Your task to perform on an android device: open app "PlayWell" (install if not already installed) Image 0: 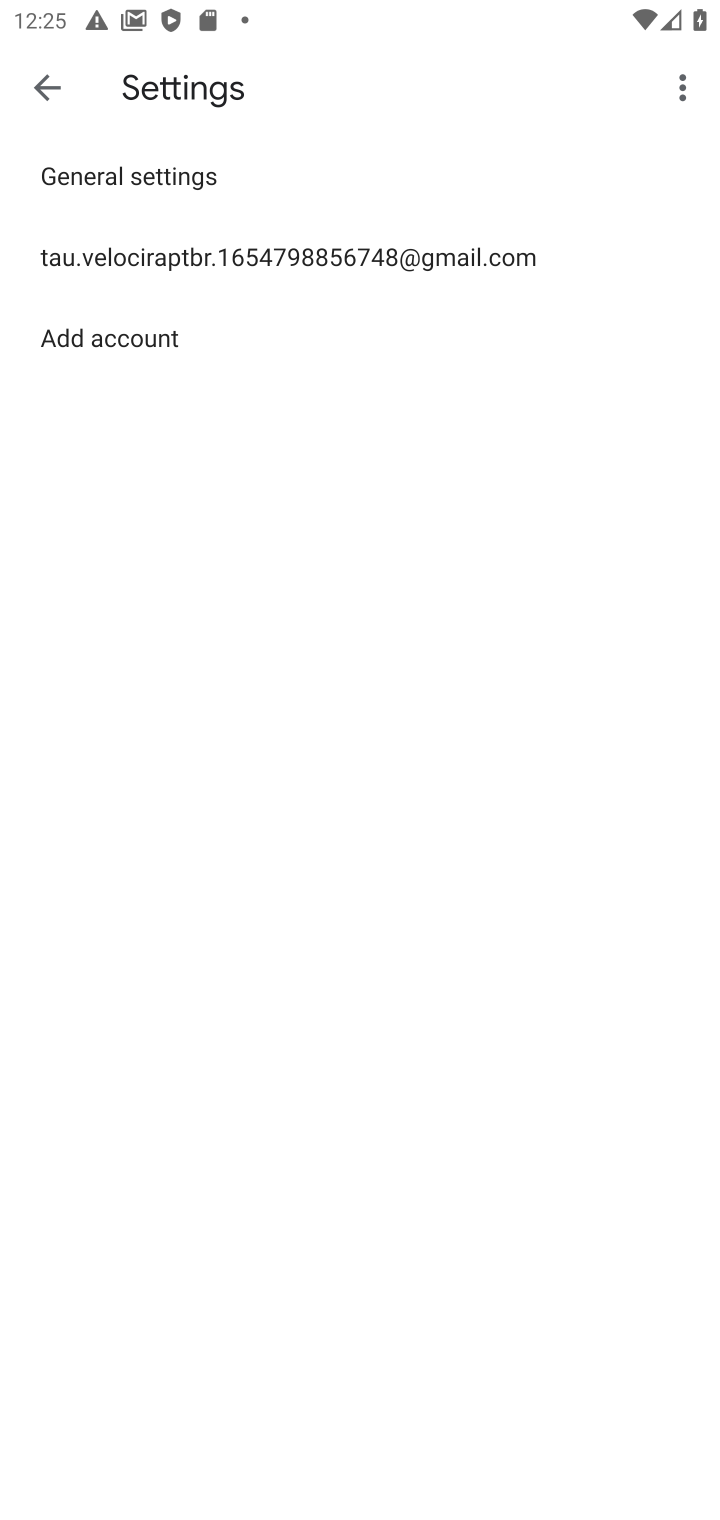
Step 0: click (58, 87)
Your task to perform on an android device: open app "PlayWell" (install if not already installed) Image 1: 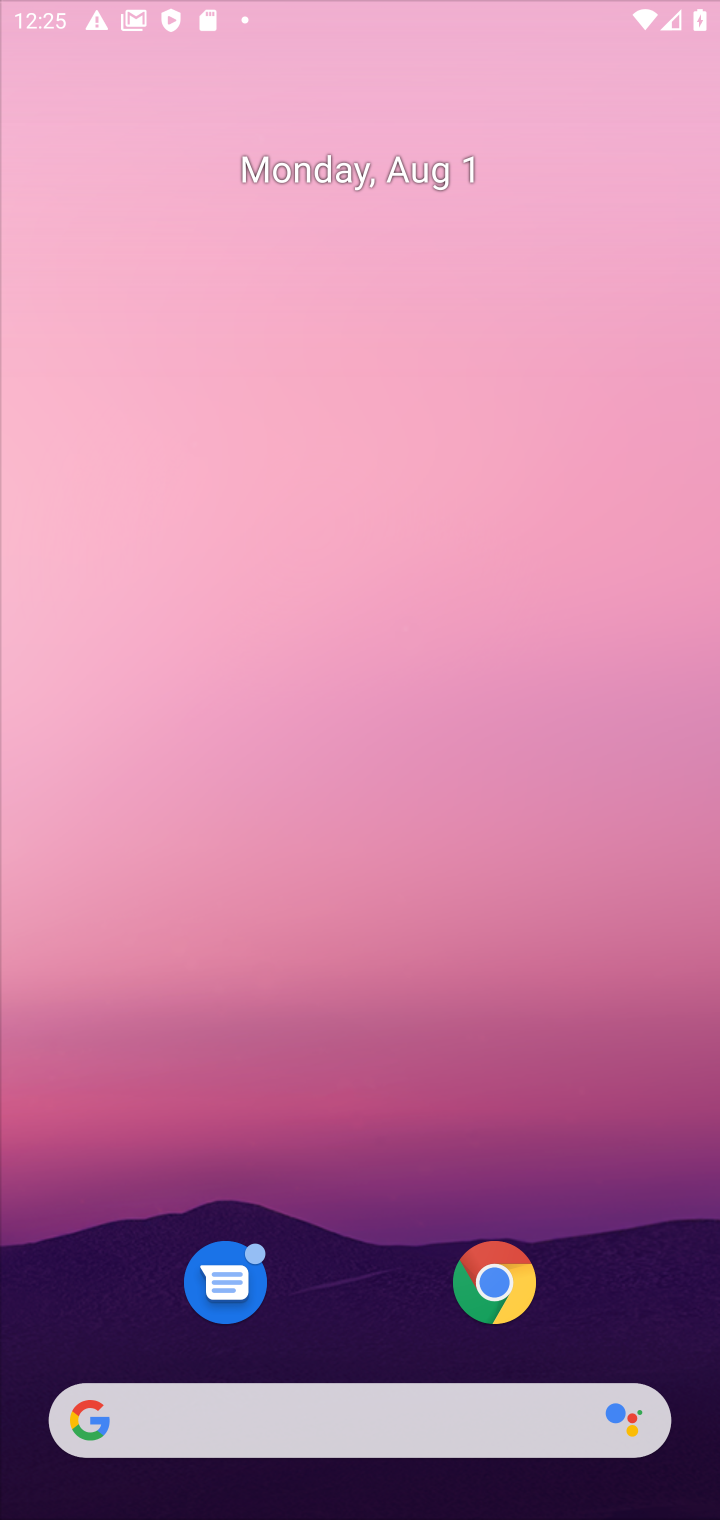
Step 1: drag from (370, 315) to (328, 12)
Your task to perform on an android device: open app "PlayWell" (install if not already installed) Image 2: 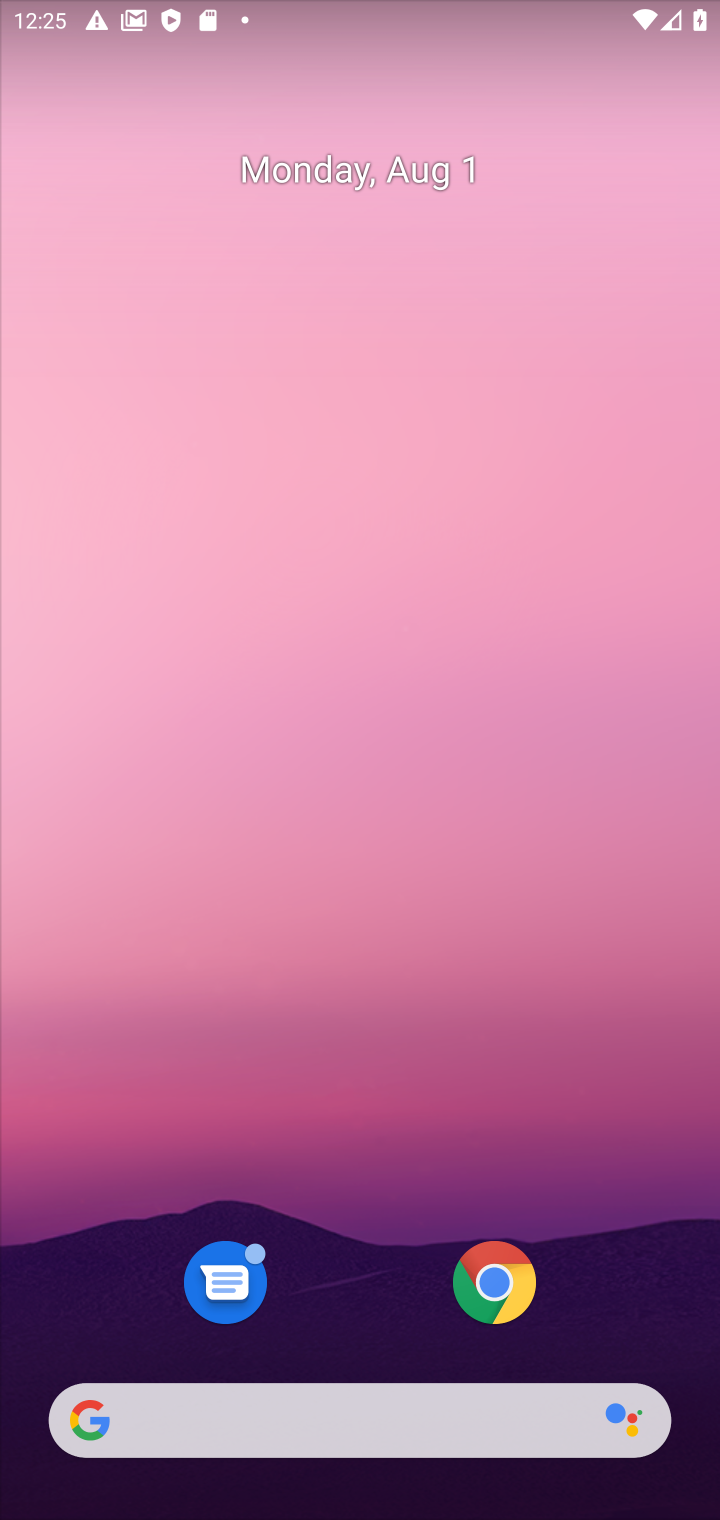
Step 2: drag from (408, 1083) to (309, 233)
Your task to perform on an android device: open app "PlayWell" (install if not already installed) Image 3: 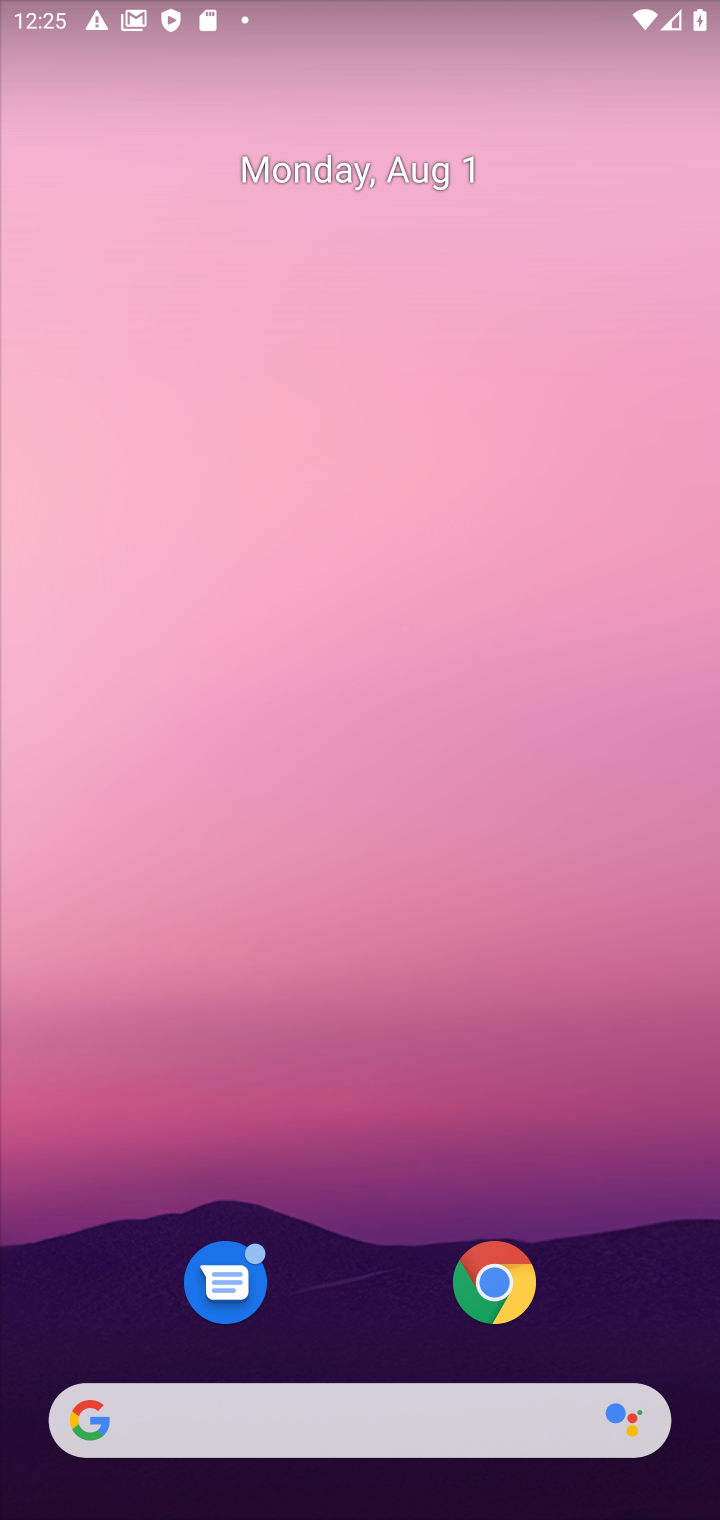
Step 3: drag from (338, 1249) to (338, 366)
Your task to perform on an android device: open app "PlayWell" (install if not already installed) Image 4: 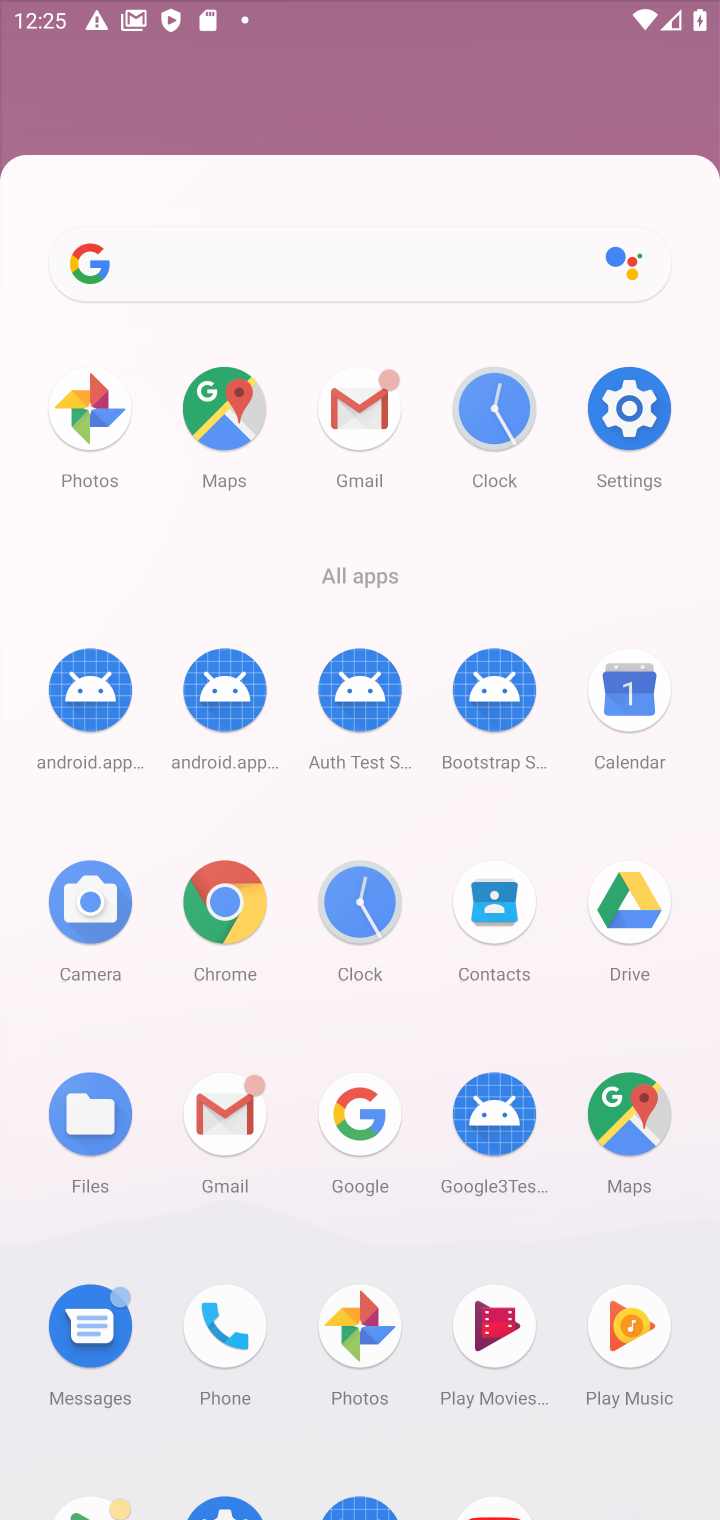
Step 4: drag from (389, 574) to (393, 119)
Your task to perform on an android device: open app "PlayWell" (install if not already installed) Image 5: 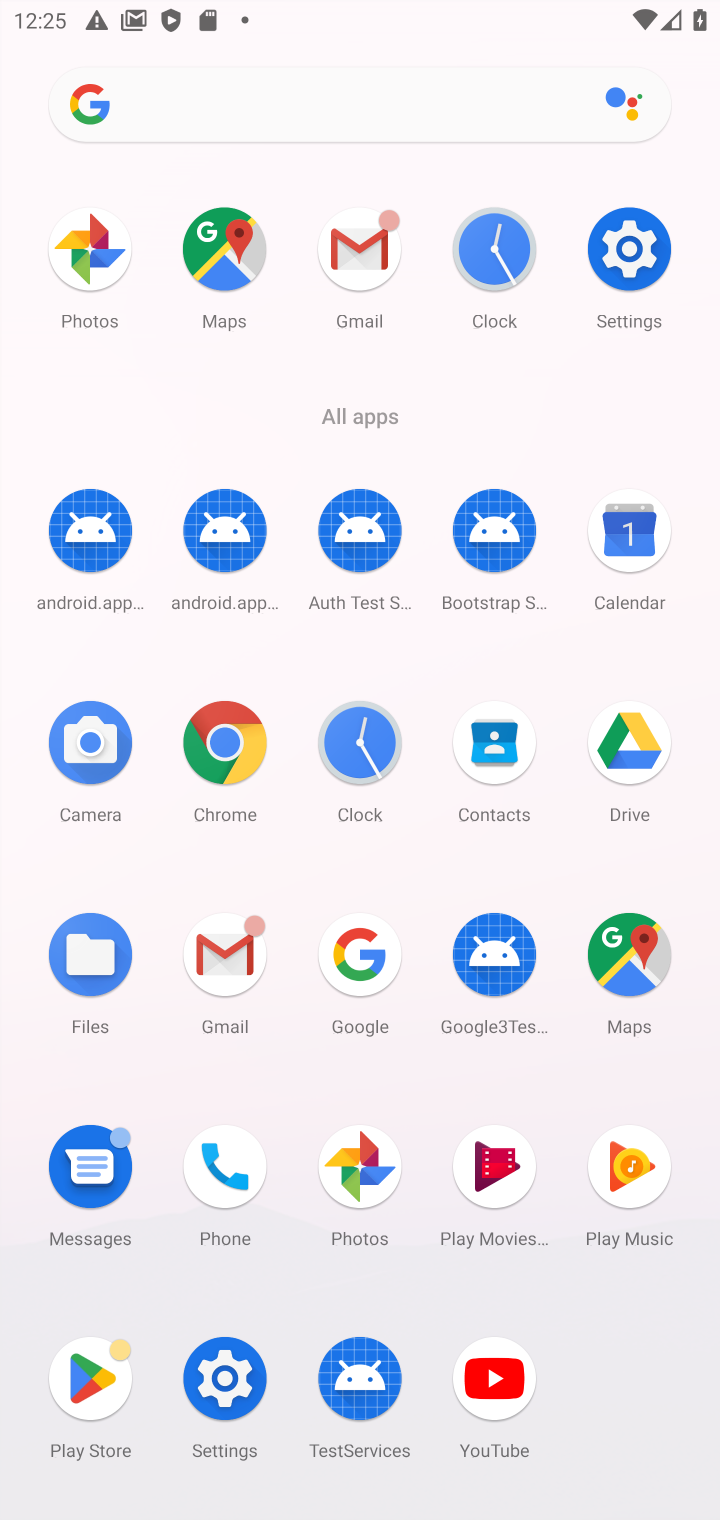
Step 5: click (424, 326)
Your task to perform on an android device: open app "PlayWell" (install if not already installed) Image 6: 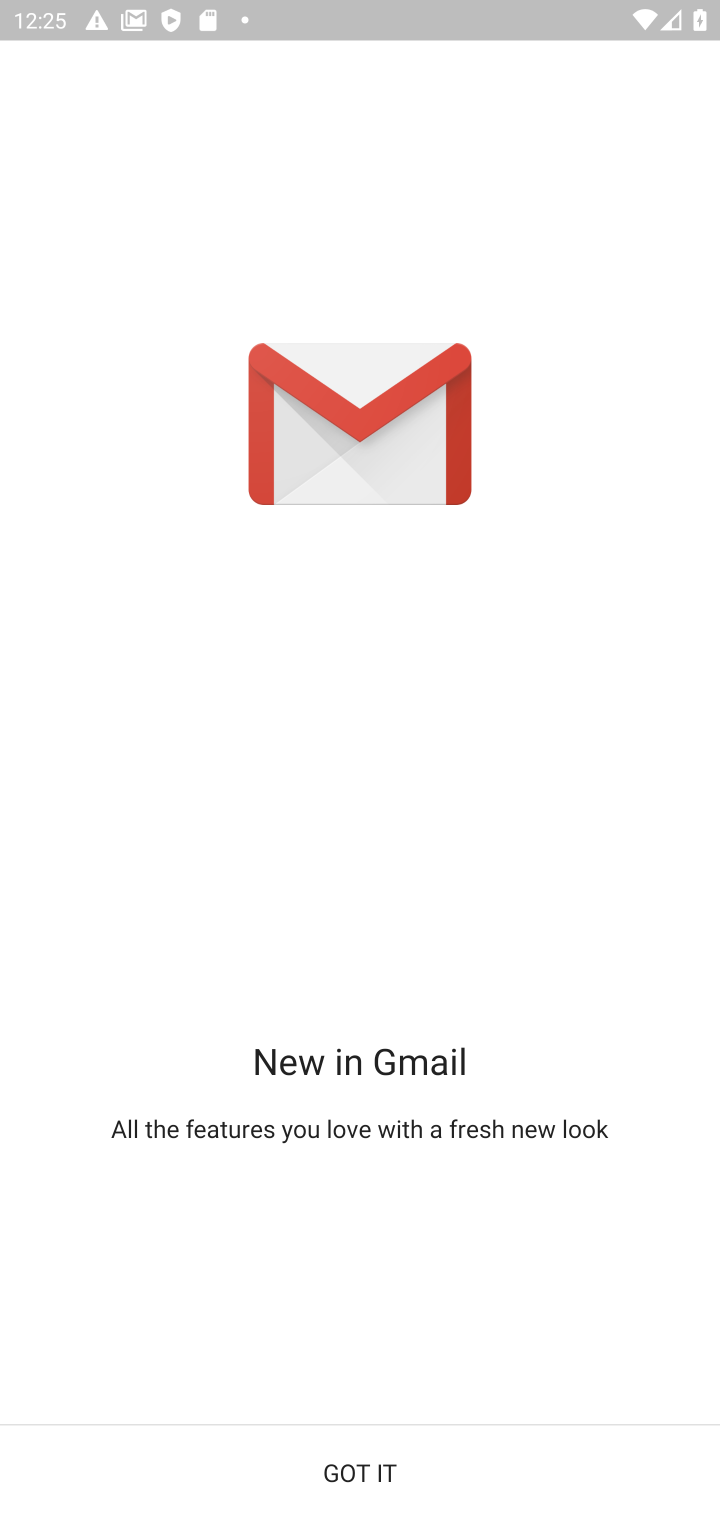
Step 6: press back button
Your task to perform on an android device: open app "PlayWell" (install if not already installed) Image 7: 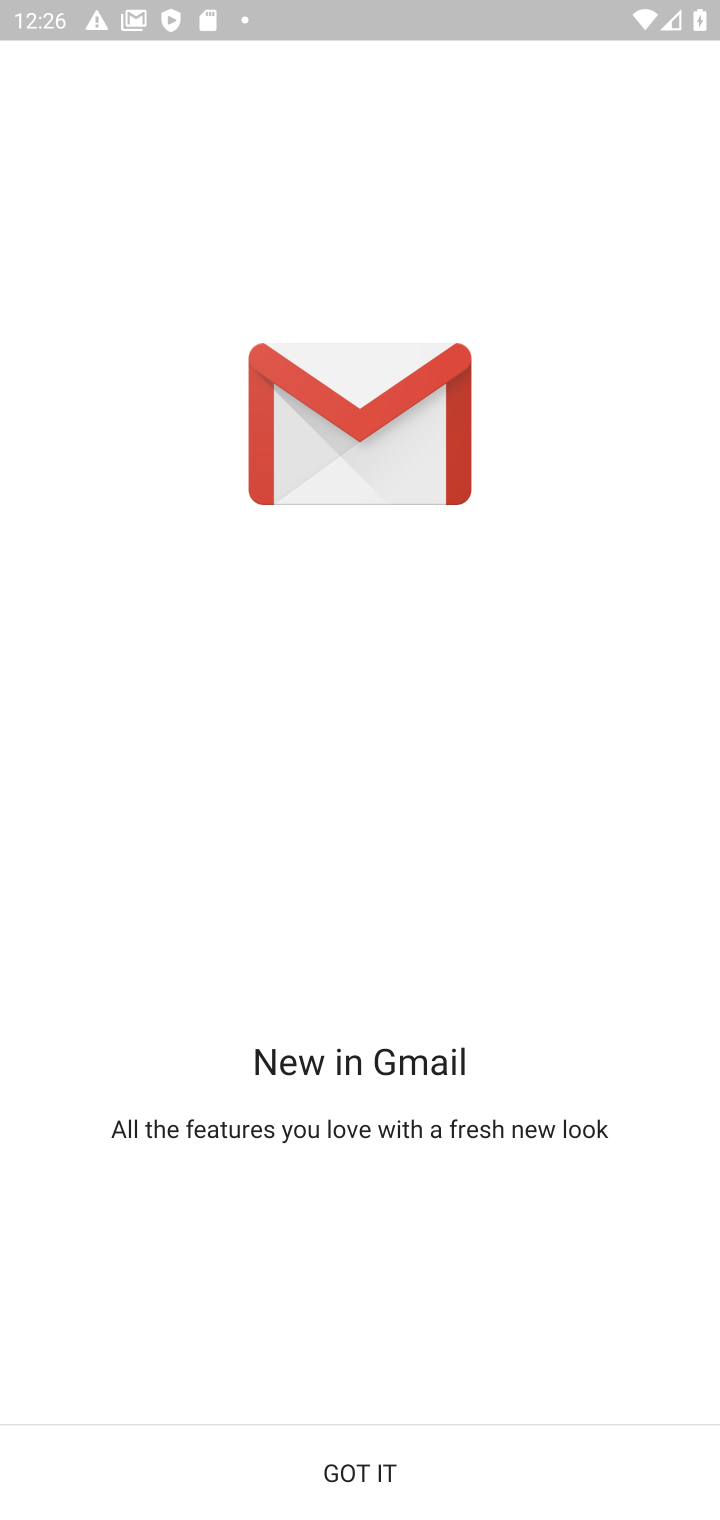
Step 7: press back button
Your task to perform on an android device: open app "PlayWell" (install if not already installed) Image 8: 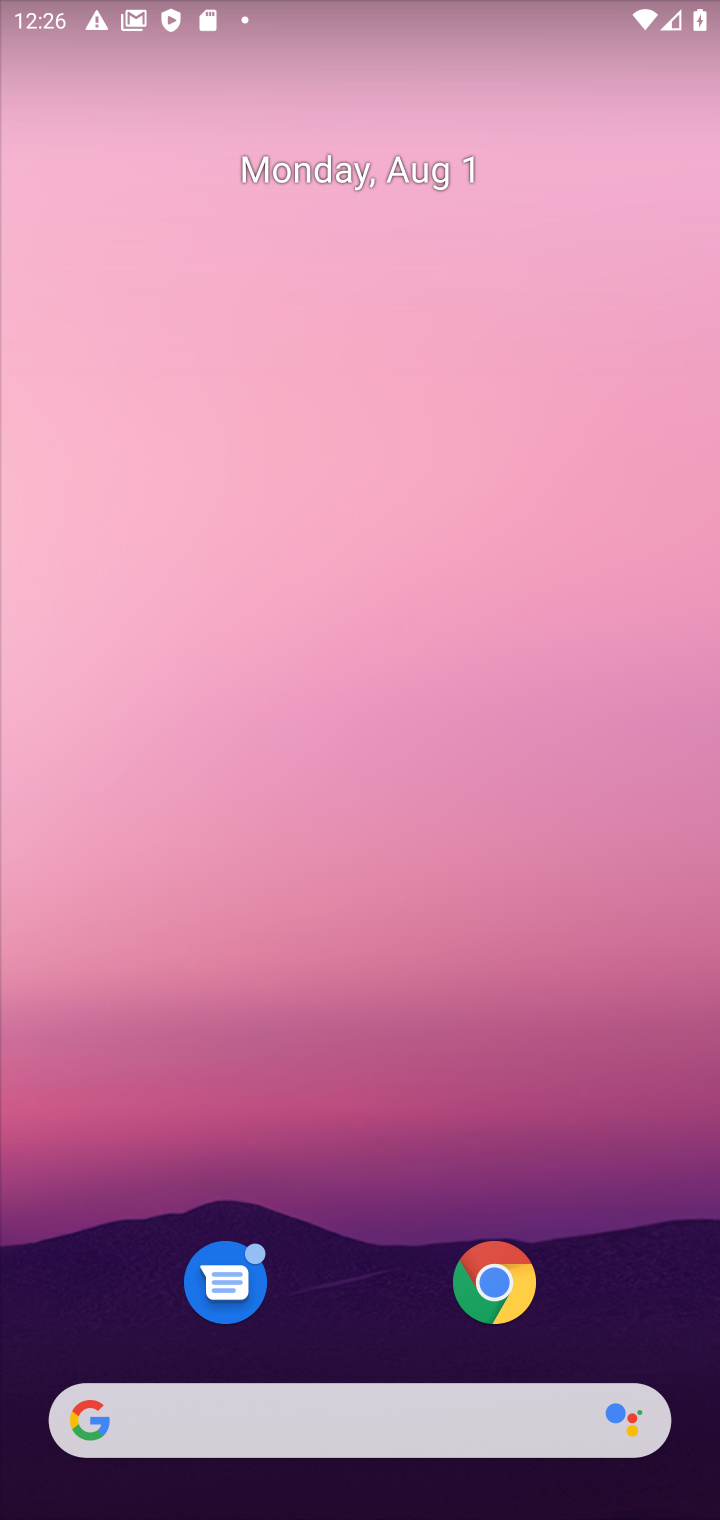
Step 8: drag from (379, 970) to (302, 3)
Your task to perform on an android device: open app "PlayWell" (install if not already installed) Image 9: 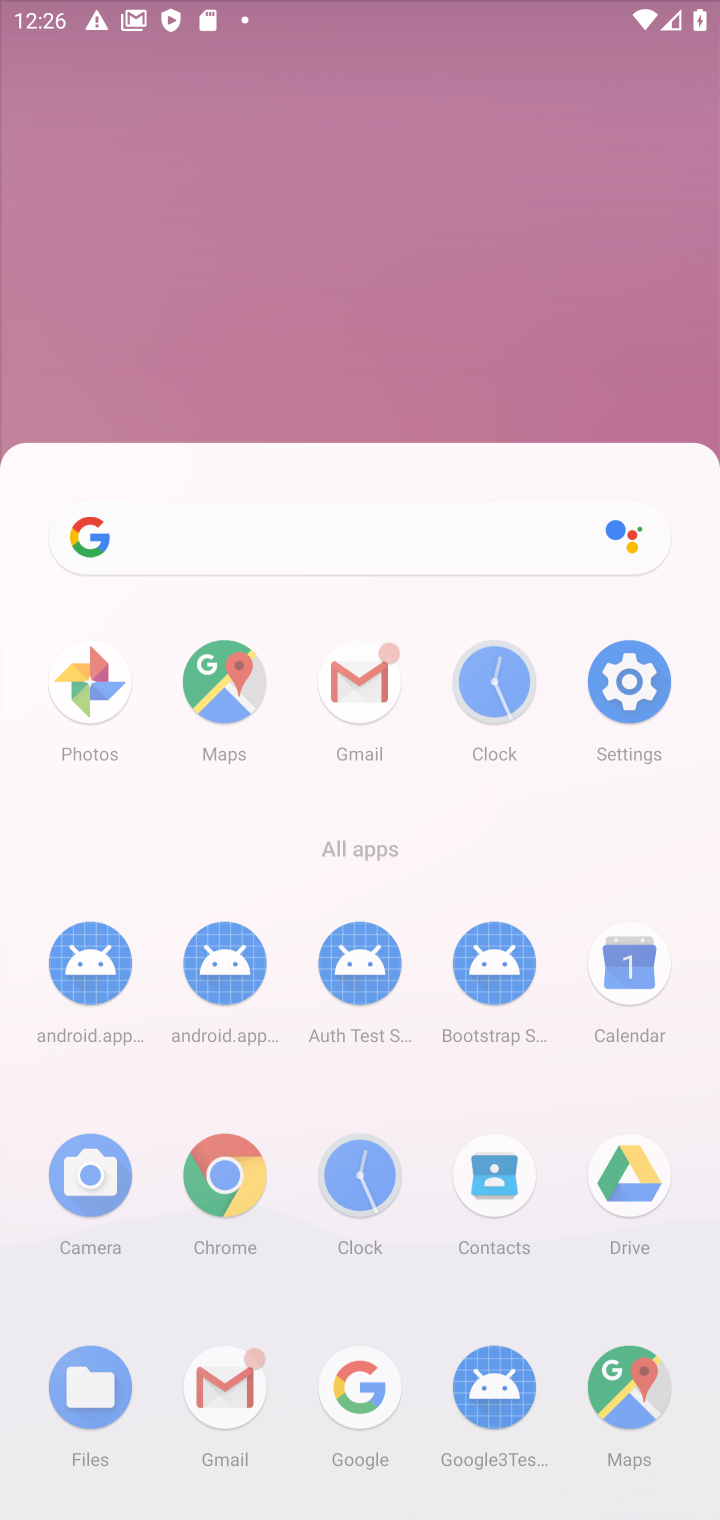
Step 9: click (313, 173)
Your task to perform on an android device: open app "PlayWell" (install if not already installed) Image 10: 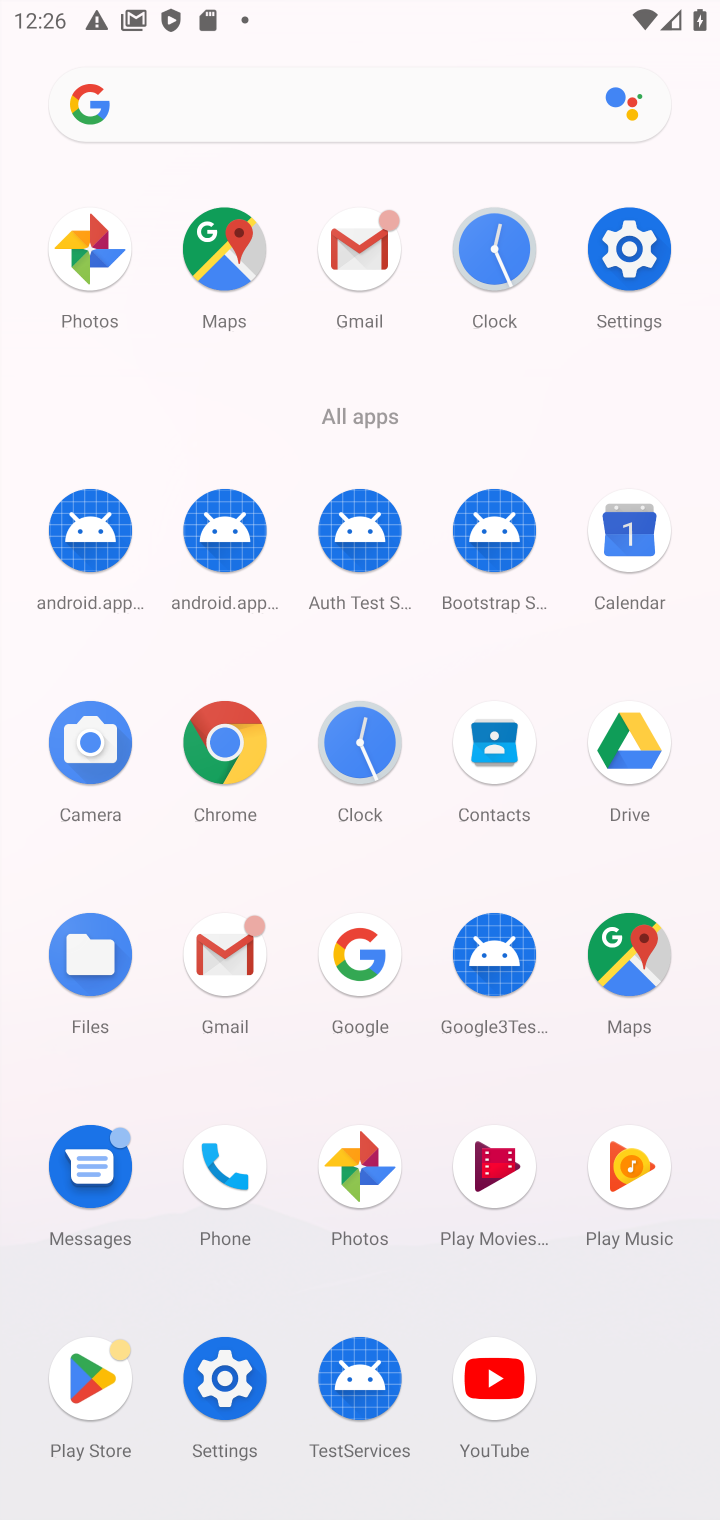
Step 10: click (75, 1393)
Your task to perform on an android device: open app "PlayWell" (install if not already installed) Image 11: 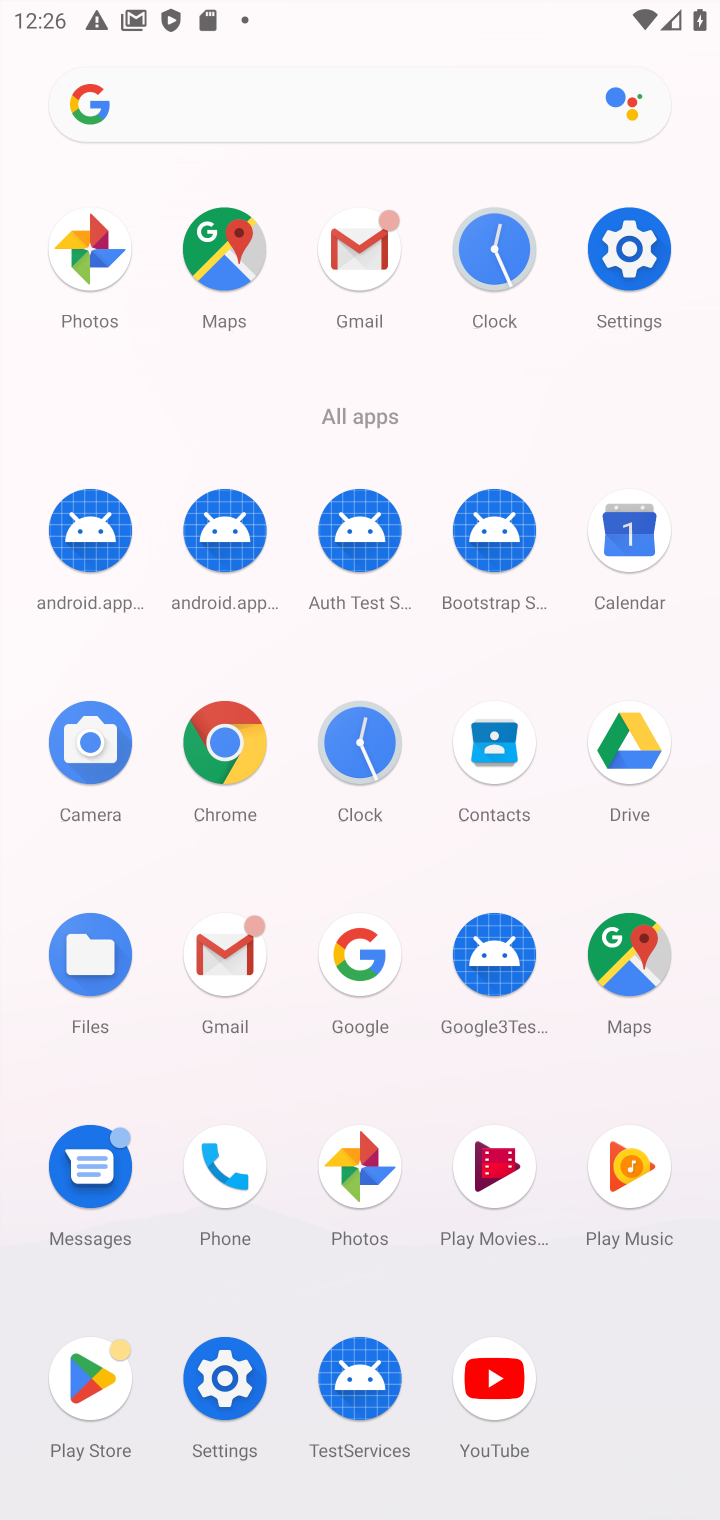
Step 11: click (77, 1391)
Your task to perform on an android device: open app "PlayWell" (install if not already installed) Image 12: 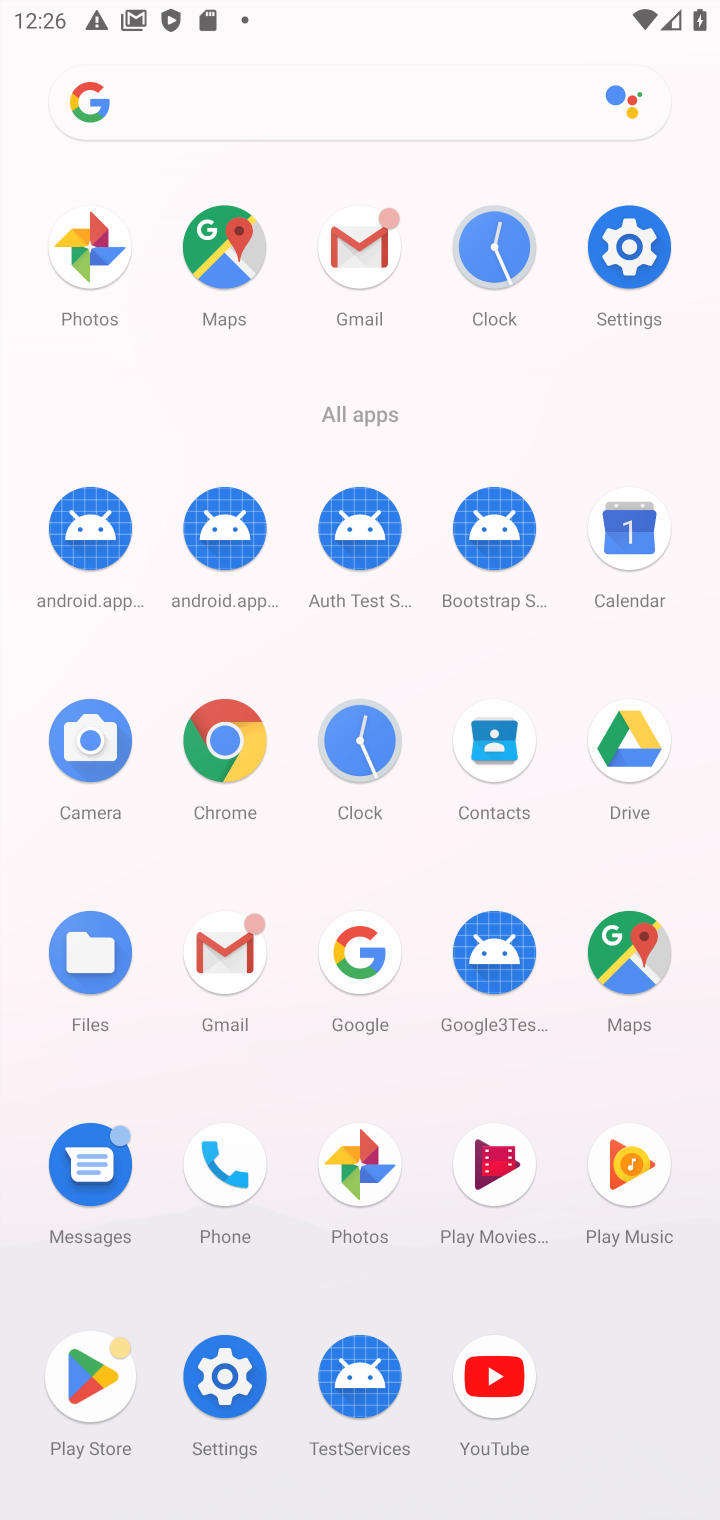
Step 12: click (81, 1387)
Your task to perform on an android device: open app "PlayWell" (install if not already installed) Image 13: 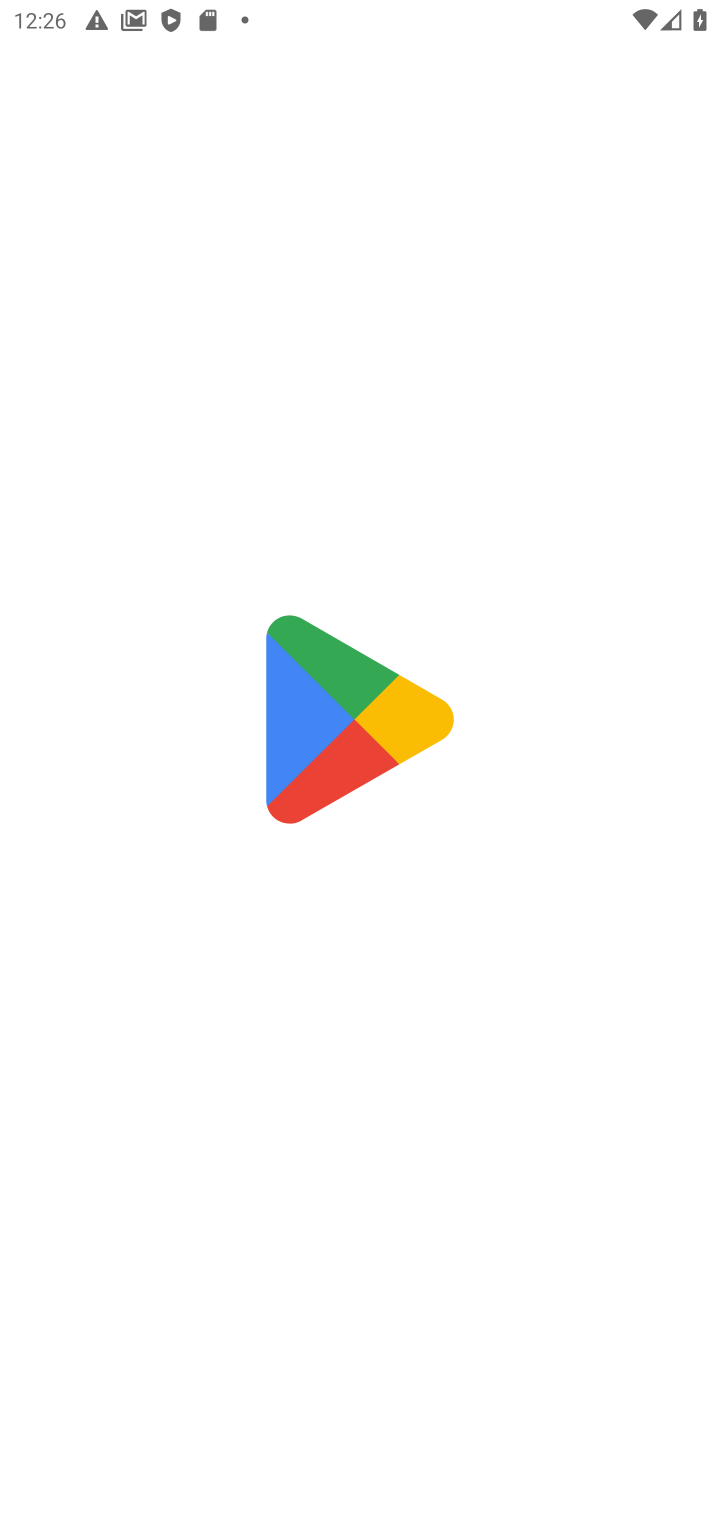
Step 13: click (87, 1373)
Your task to perform on an android device: open app "PlayWell" (install if not already installed) Image 14: 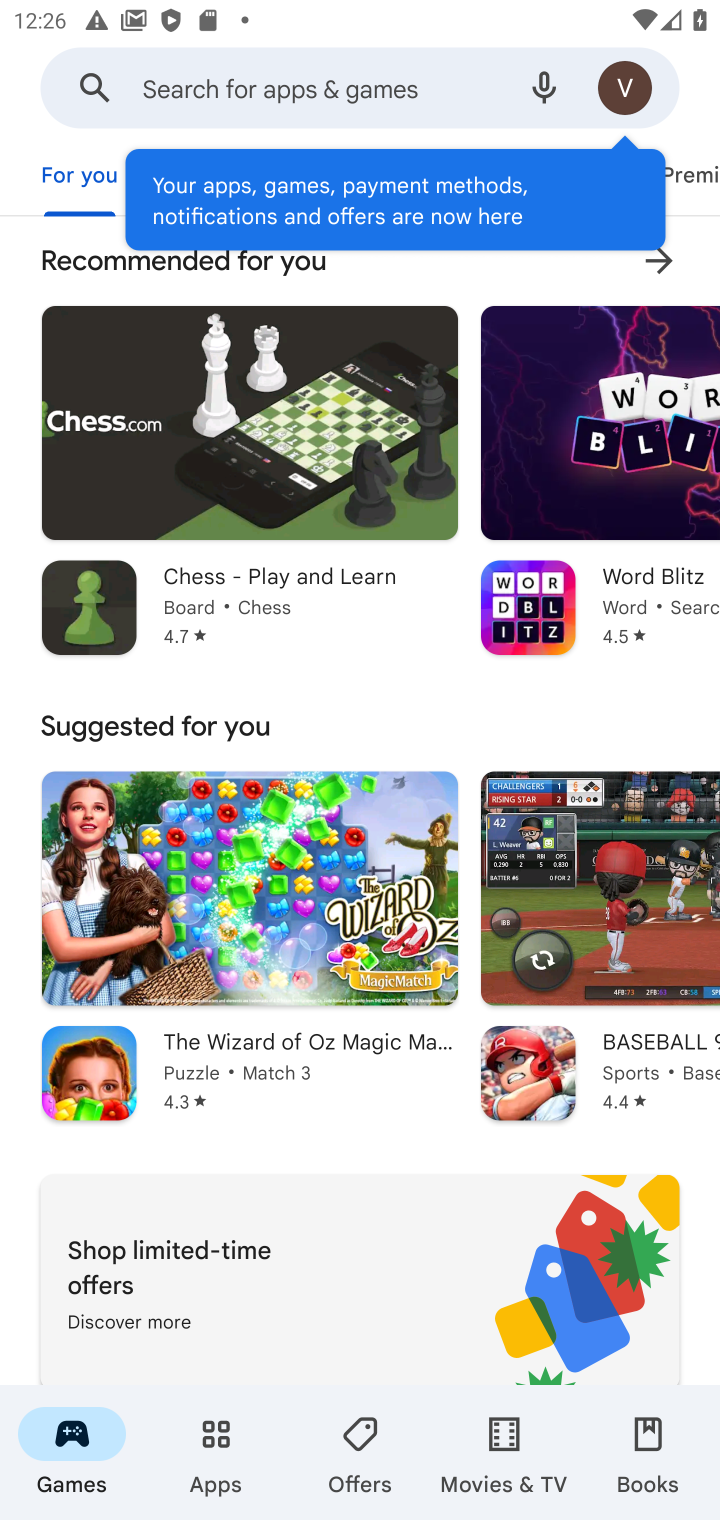
Step 14: click (195, 166)
Your task to perform on an android device: open app "PlayWell" (install if not already installed) Image 15: 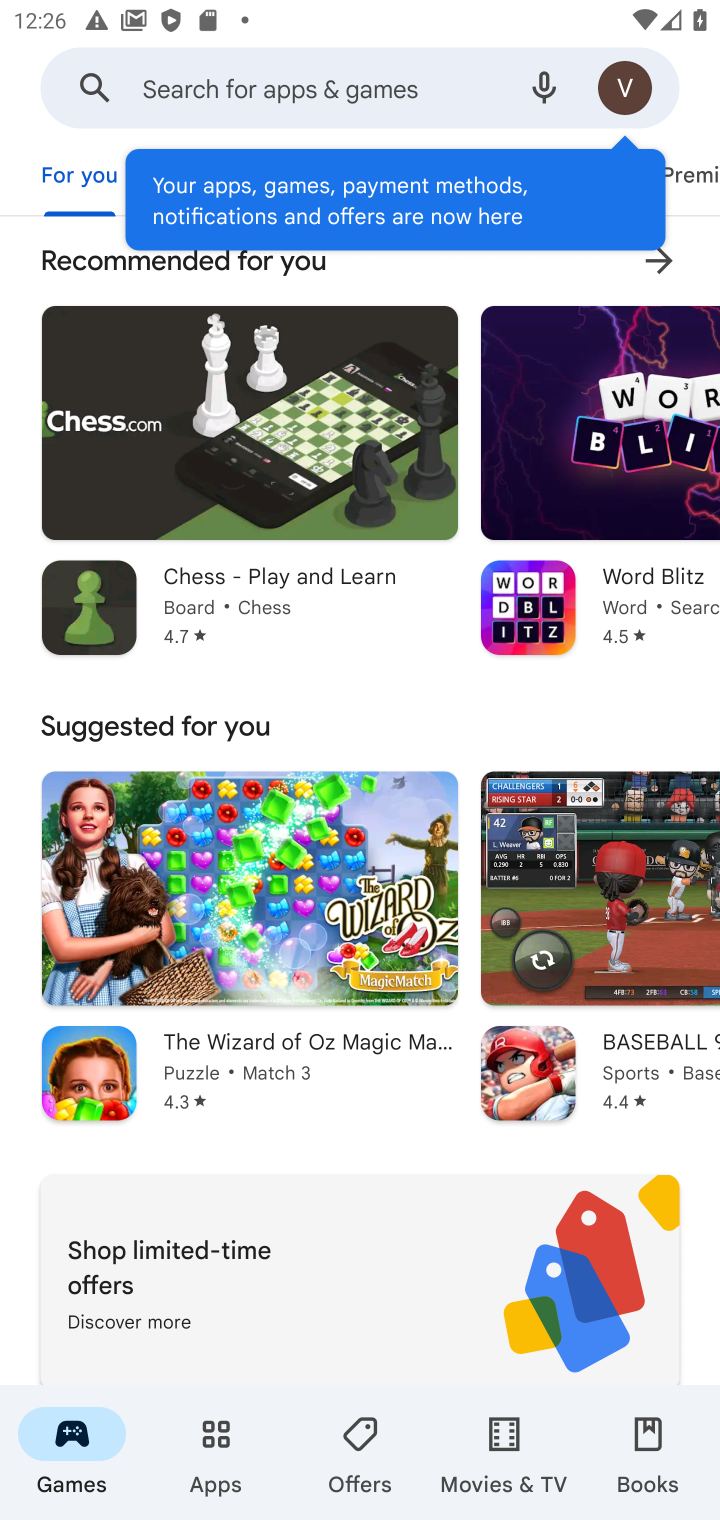
Step 15: click (188, 88)
Your task to perform on an android device: open app "PlayWell" (install if not already installed) Image 16: 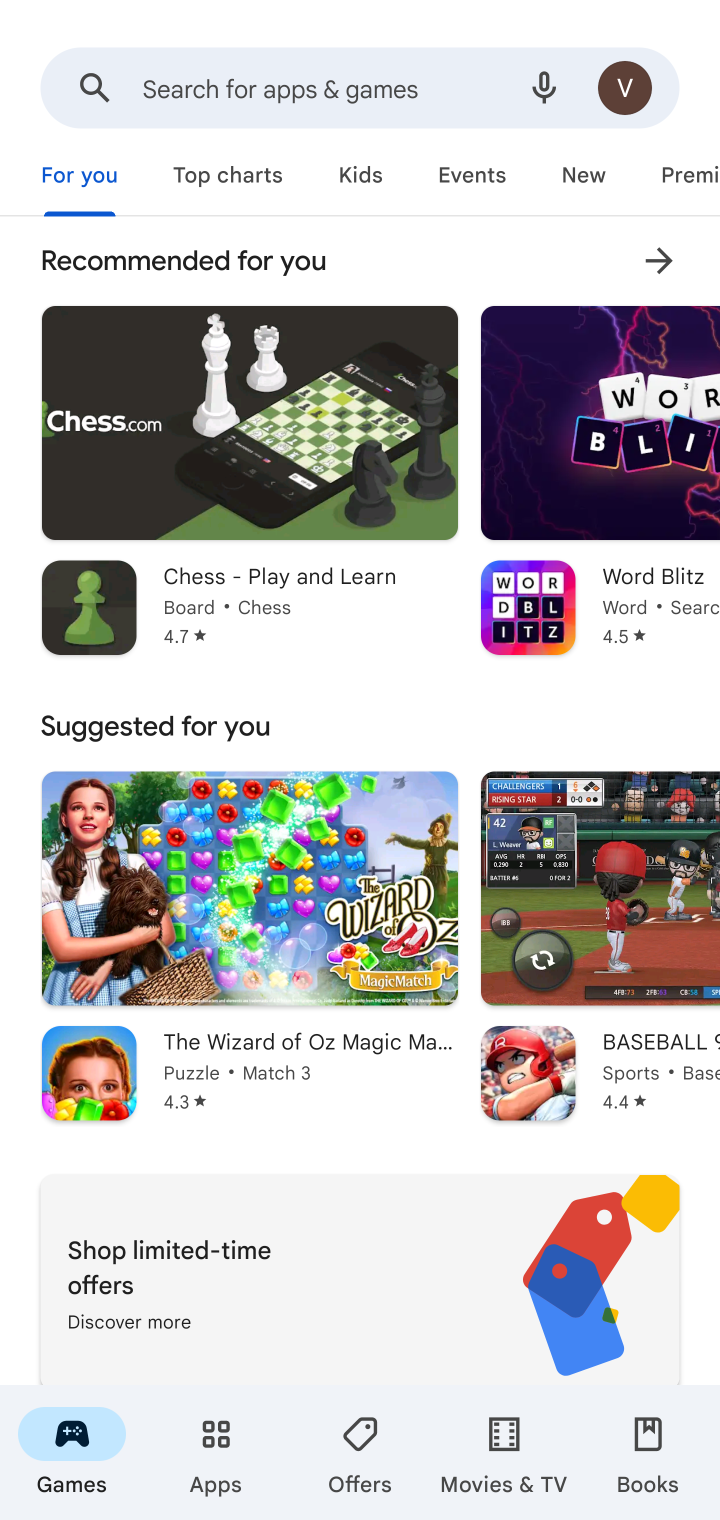
Step 16: click (172, 82)
Your task to perform on an android device: open app "PlayWell" (install if not already installed) Image 17: 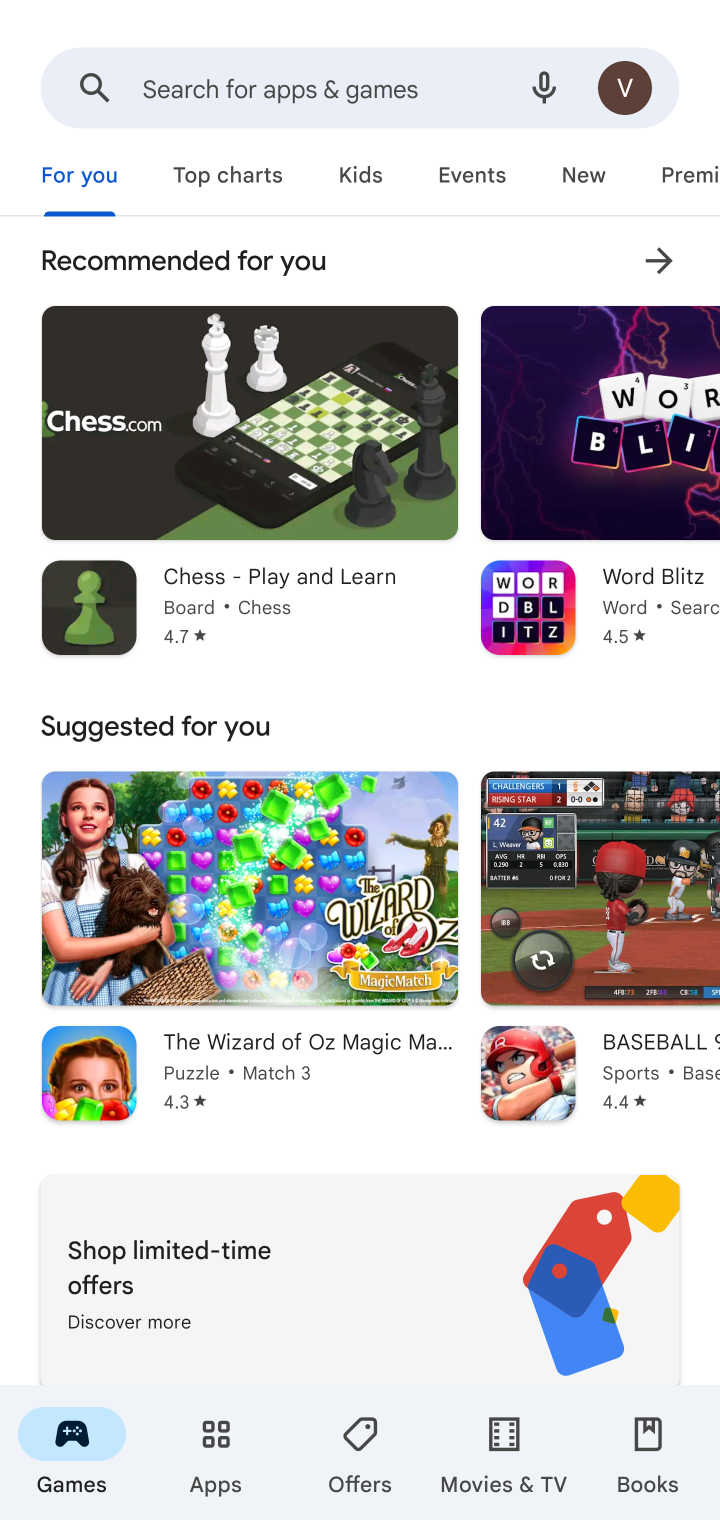
Step 17: click (183, 103)
Your task to perform on an android device: open app "PlayWell" (install if not already installed) Image 18: 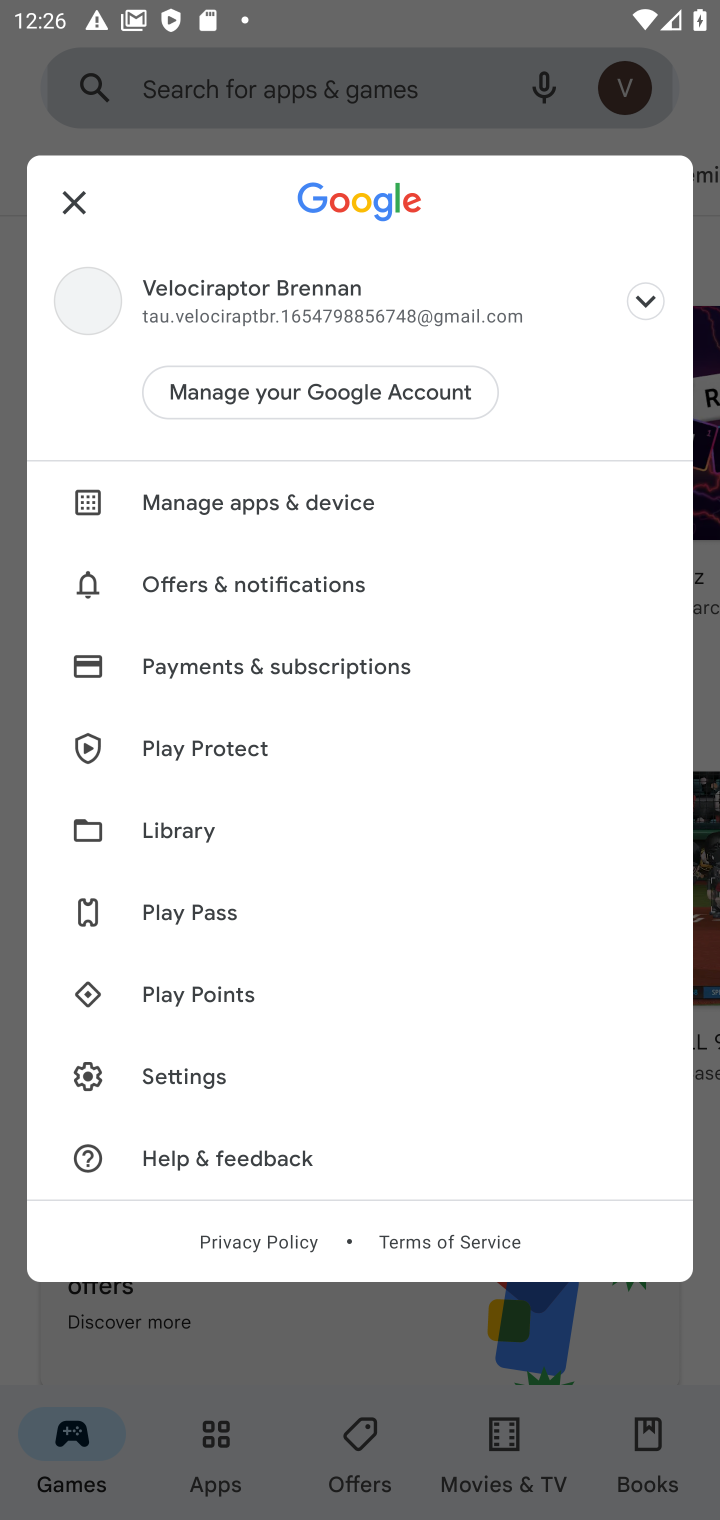
Step 18: click (189, 92)
Your task to perform on an android device: open app "PlayWell" (install if not already installed) Image 19: 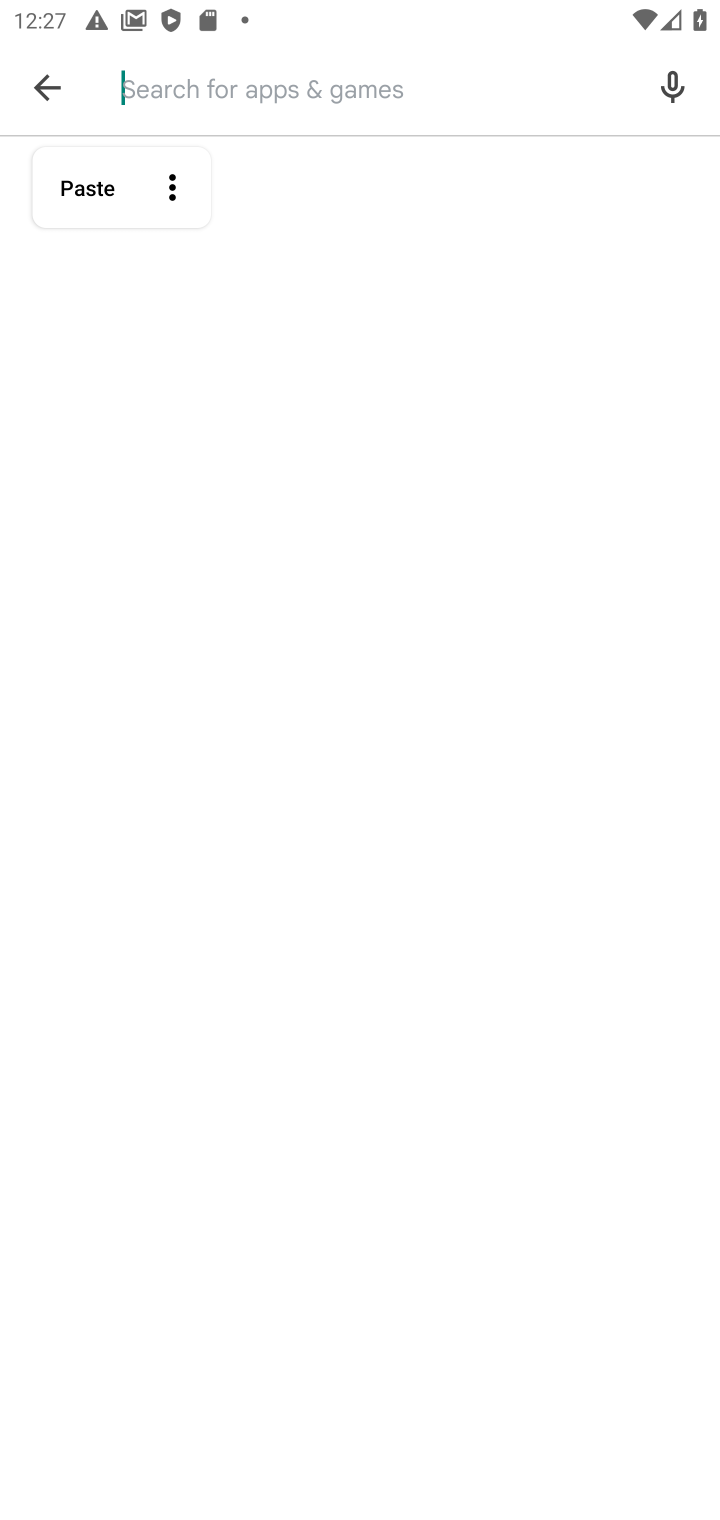
Step 19: type "playWell"
Your task to perform on an android device: open app "PlayWell" (install if not already installed) Image 20: 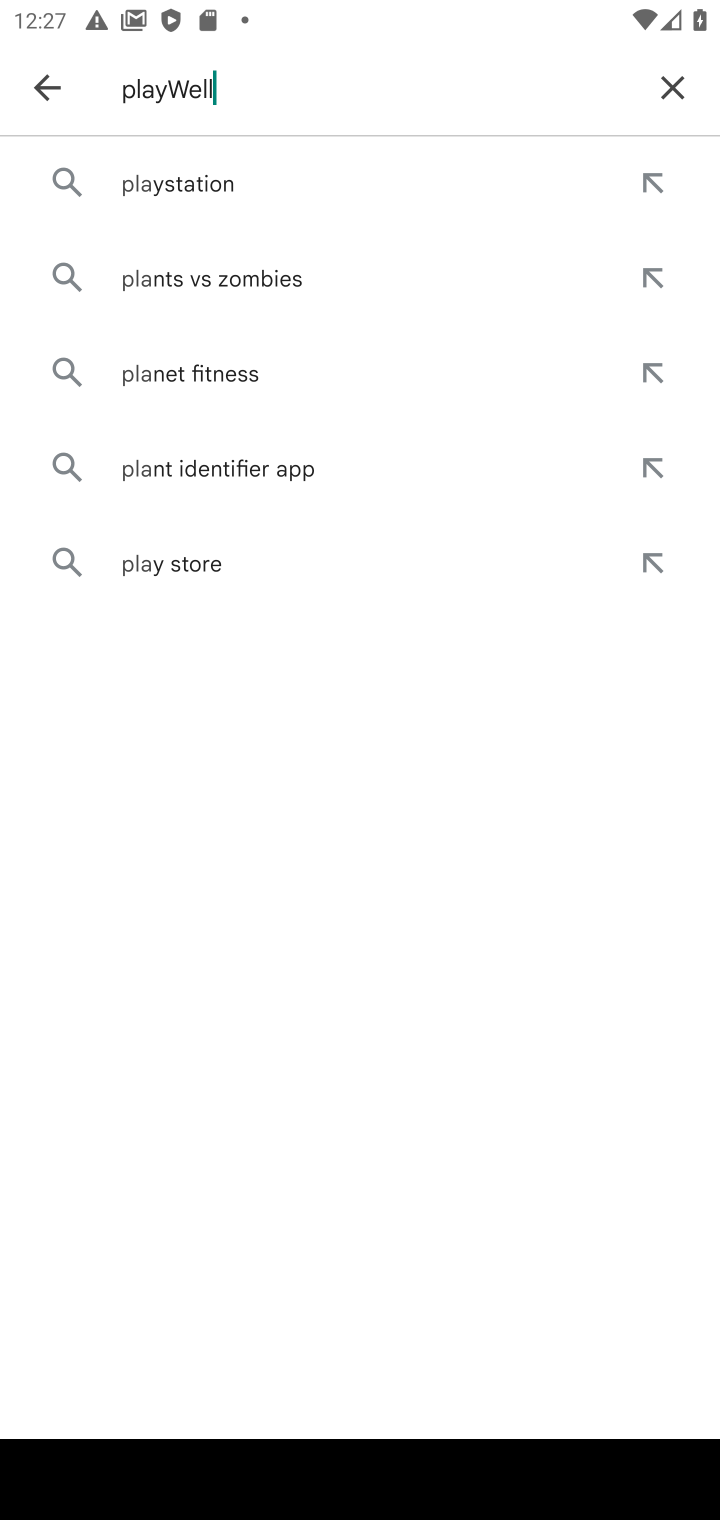
Step 20: click (167, 84)
Your task to perform on an android device: open app "PlayWell" (install if not already installed) Image 21: 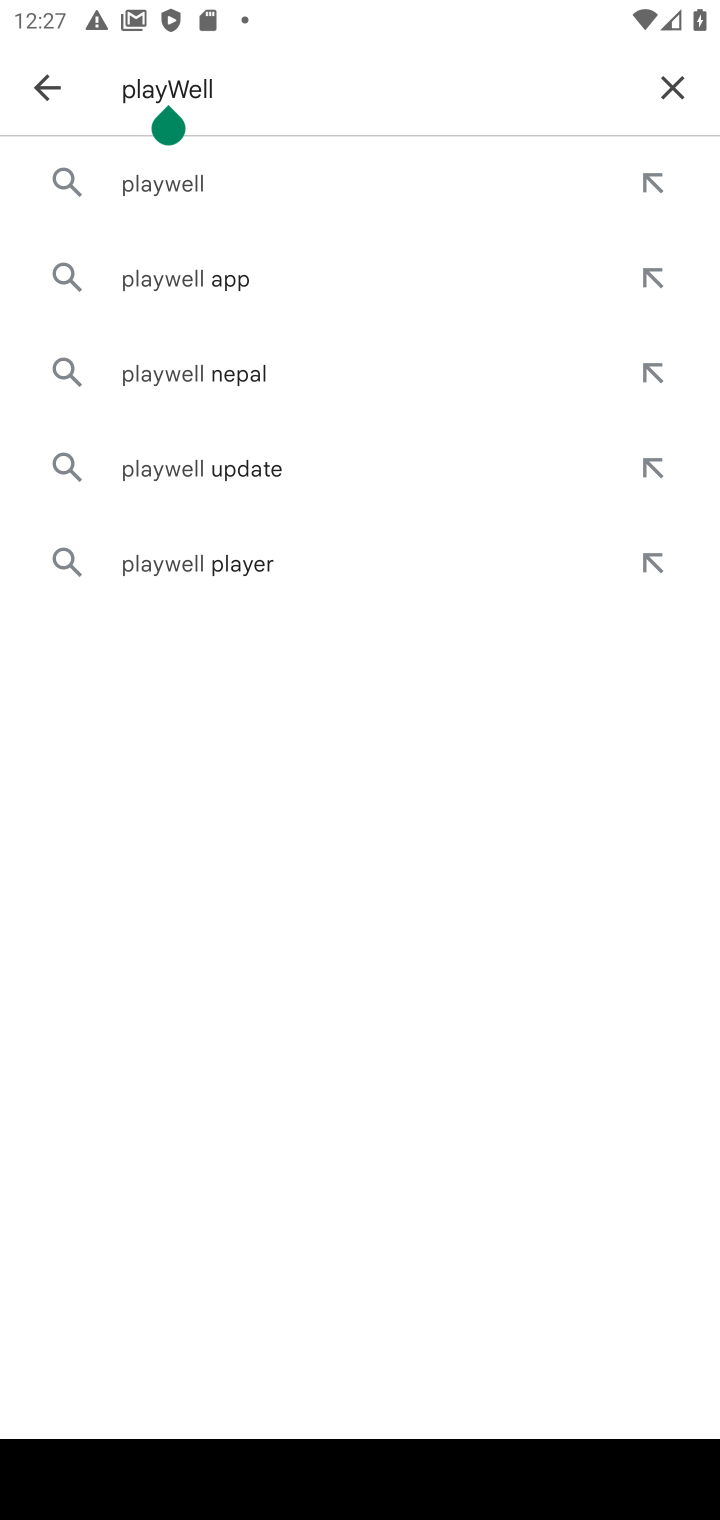
Step 21: click (162, 182)
Your task to perform on an android device: open app "PlayWell" (install if not already installed) Image 22: 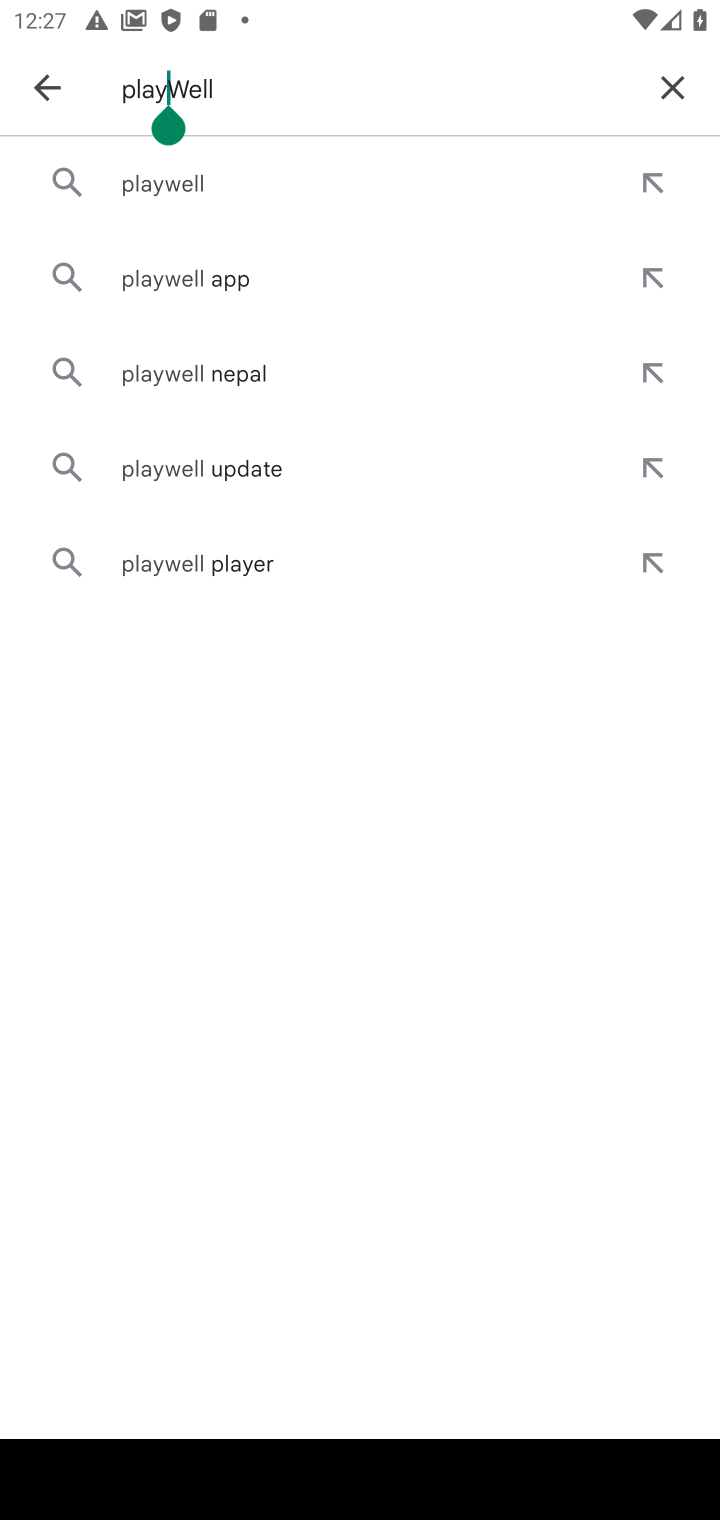
Step 22: click (162, 180)
Your task to perform on an android device: open app "PlayWell" (install if not already installed) Image 23: 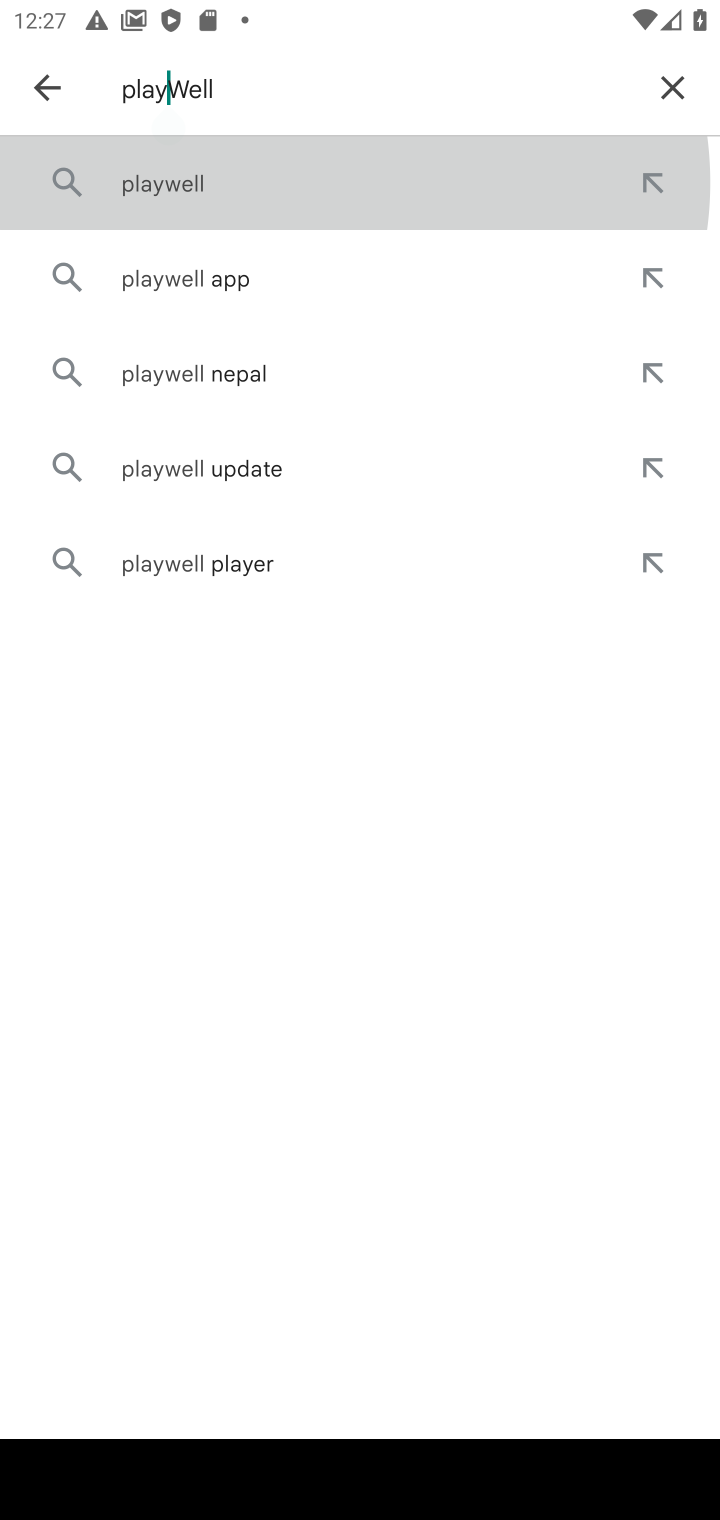
Step 23: click (182, 182)
Your task to perform on an android device: open app "PlayWell" (install if not already installed) Image 24: 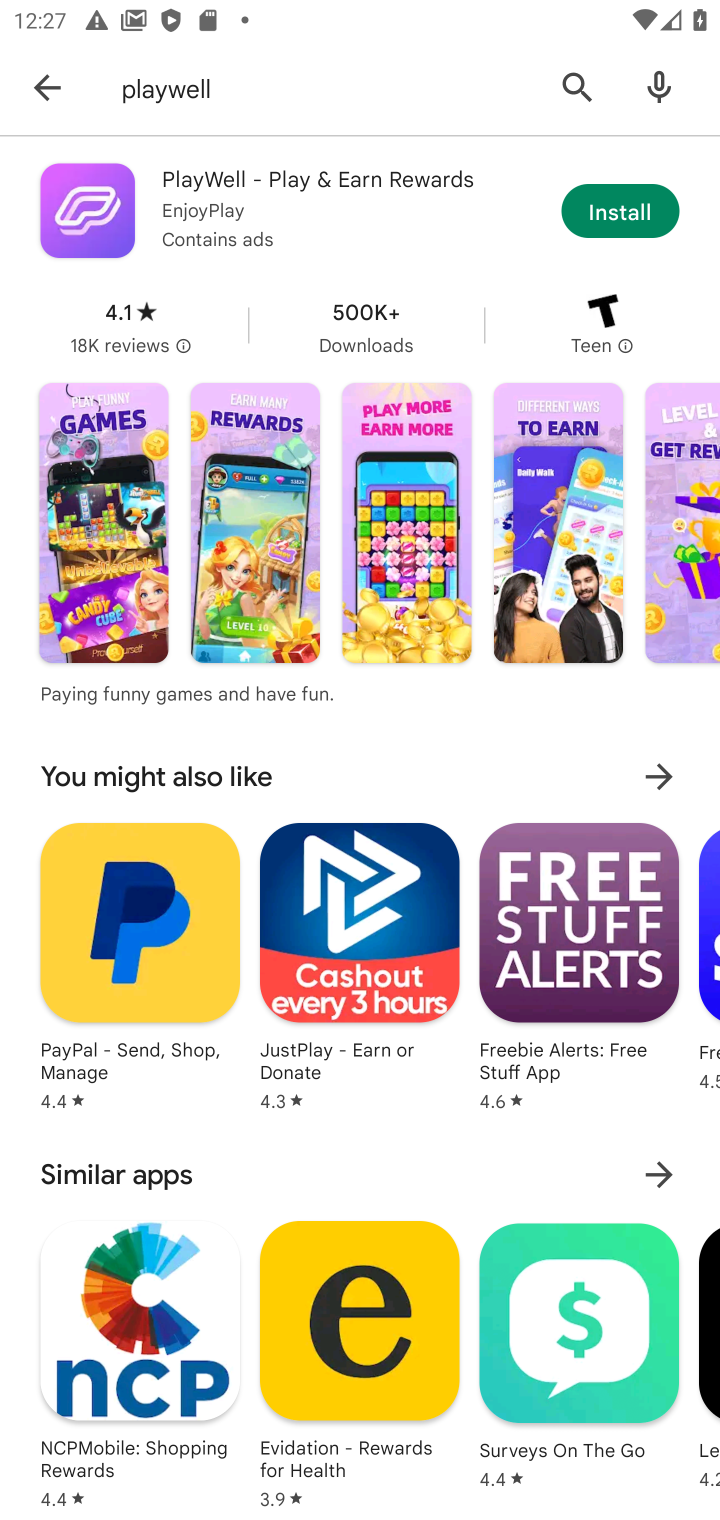
Step 24: click (612, 191)
Your task to perform on an android device: open app "PlayWell" (install if not already installed) Image 25: 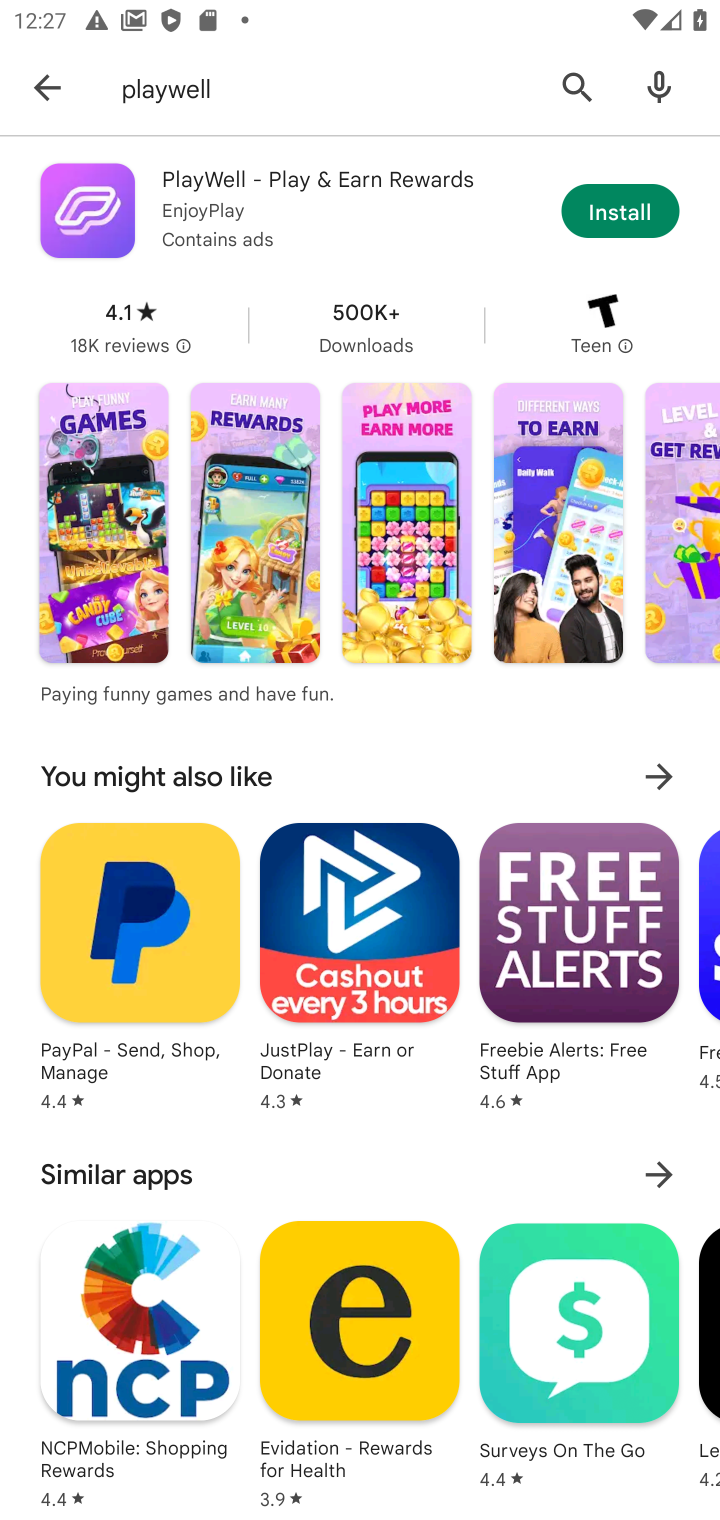
Step 25: click (602, 217)
Your task to perform on an android device: open app "PlayWell" (install if not already installed) Image 26: 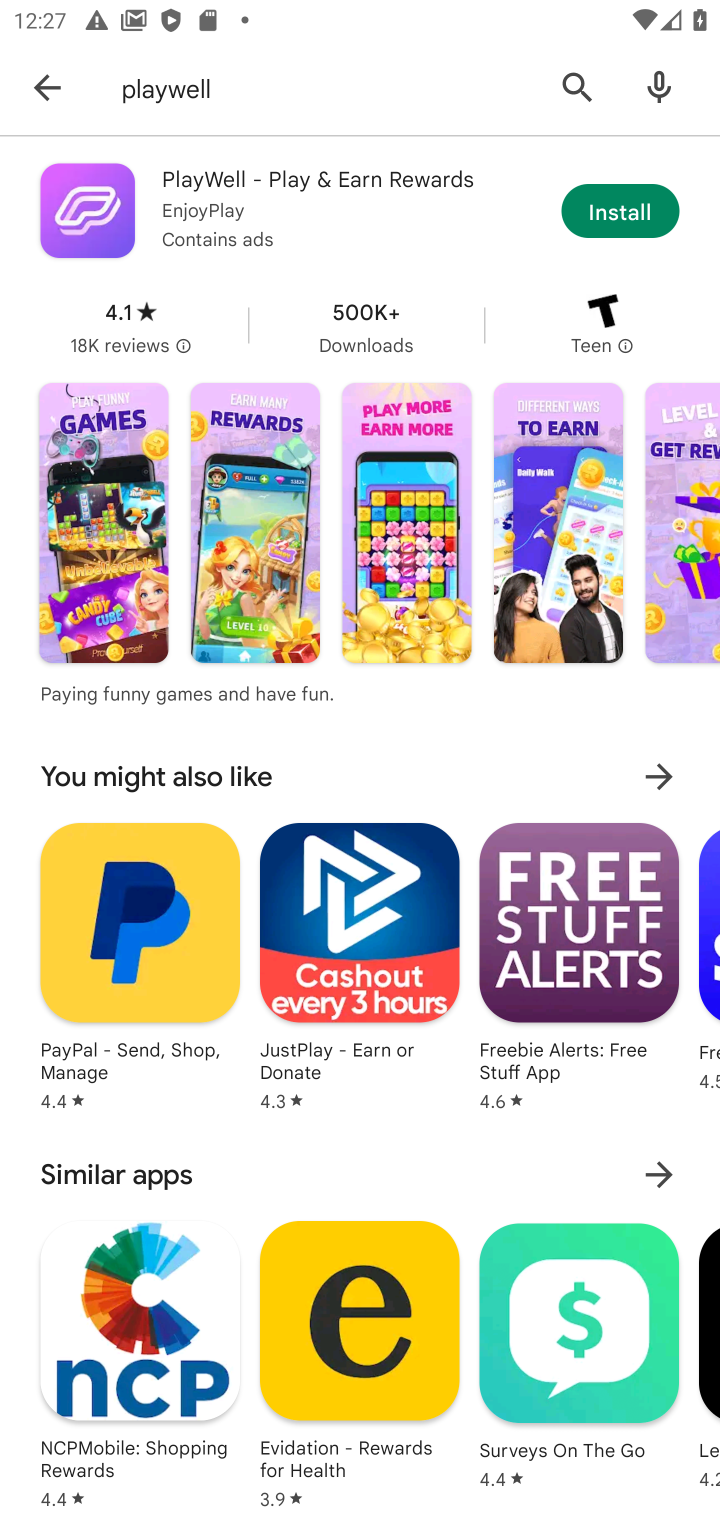
Step 26: task complete